Your task to perform on an android device: install app "Gmail" Image 0: 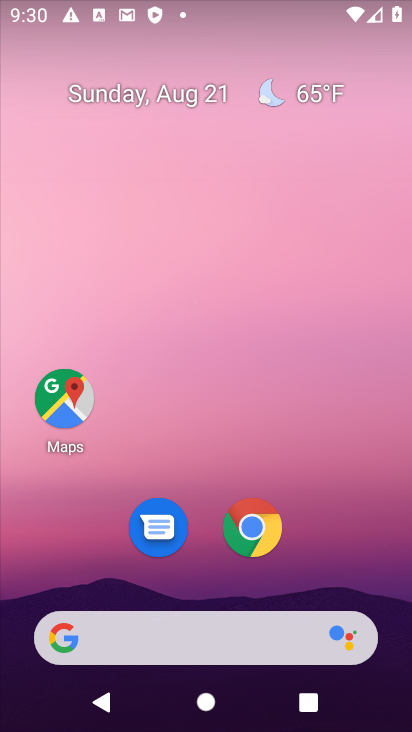
Step 0: drag from (191, 584) to (260, 16)
Your task to perform on an android device: install app "Gmail" Image 1: 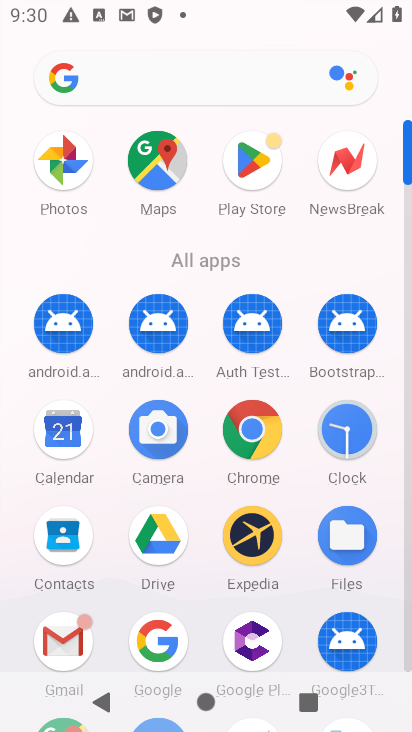
Step 1: click (258, 173)
Your task to perform on an android device: install app "Gmail" Image 2: 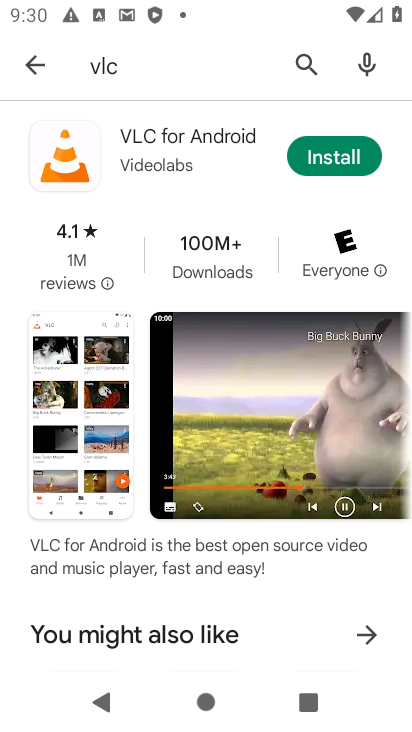
Step 2: click (149, 65)
Your task to perform on an android device: install app "Gmail" Image 3: 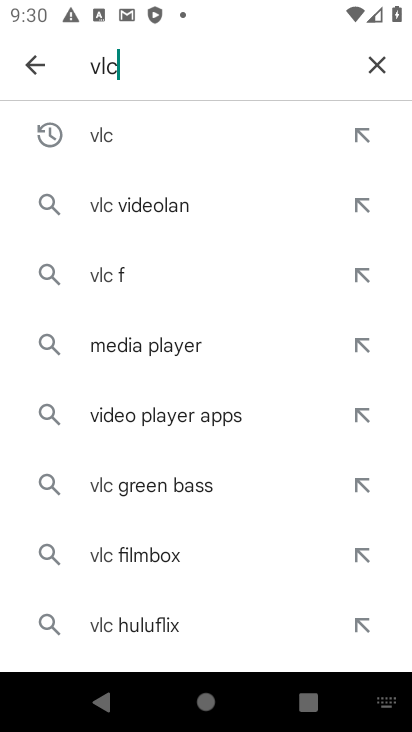
Step 3: click (375, 60)
Your task to perform on an android device: install app "Gmail" Image 4: 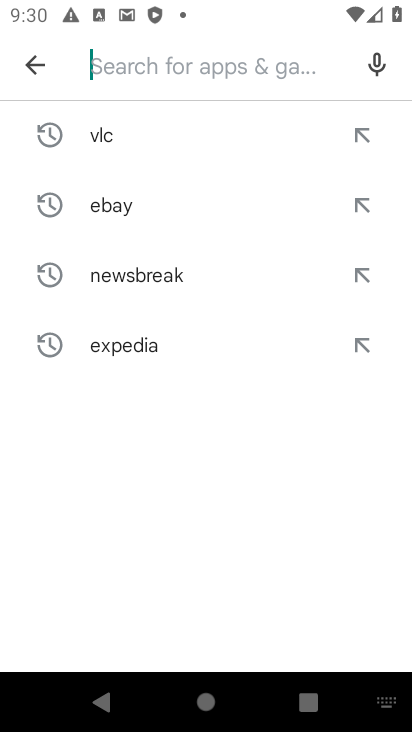
Step 4: type "gmail"
Your task to perform on an android device: install app "Gmail" Image 5: 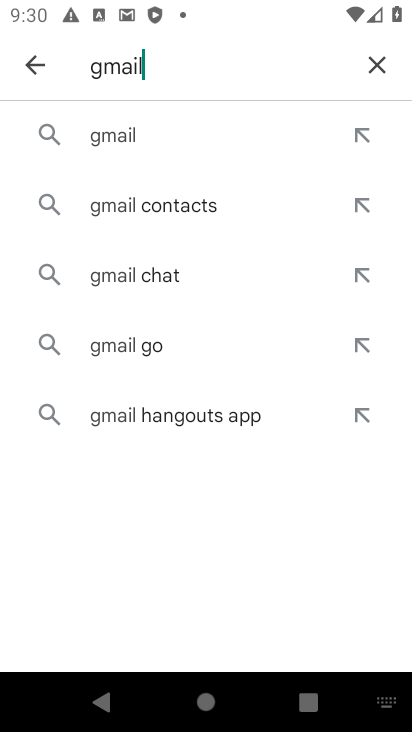
Step 5: click (155, 141)
Your task to perform on an android device: install app "Gmail" Image 6: 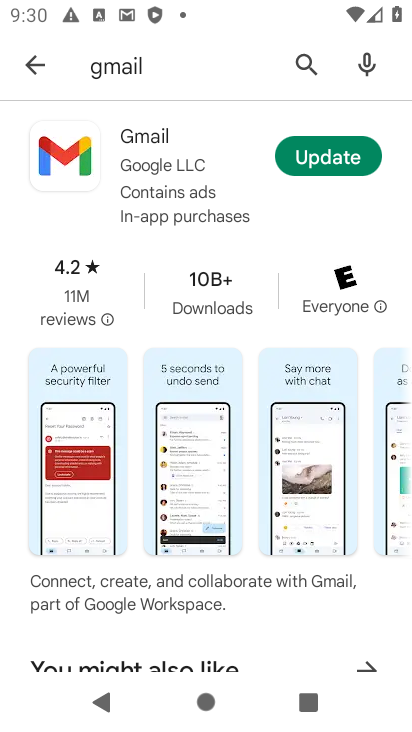
Step 6: click (343, 155)
Your task to perform on an android device: install app "Gmail" Image 7: 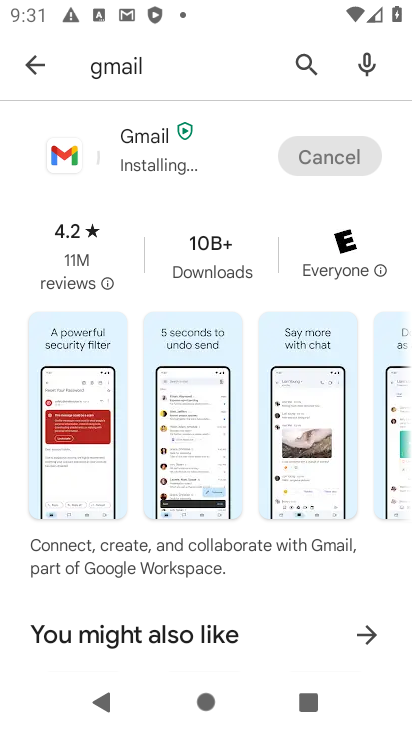
Step 7: click (139, 140)
Your task to perform on an android device: install app "Gmail" Image 8: 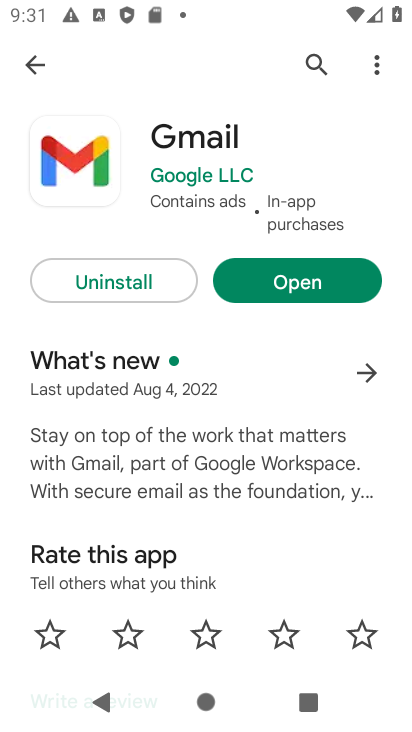
Step 8: task complete